Your task to perform on an android device: Go to wifi settings Image 0: 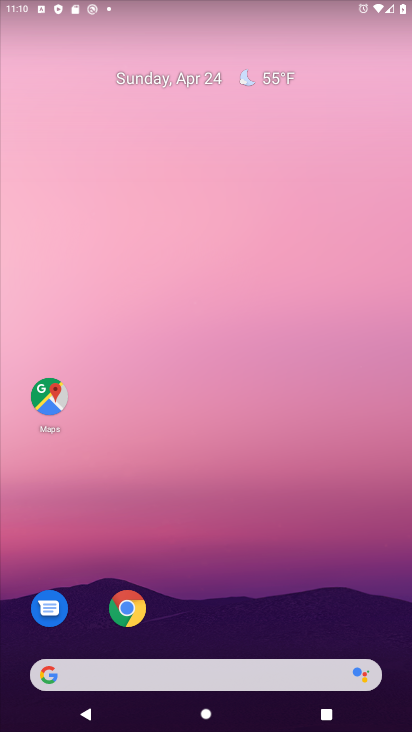
Step 0: drag from (373, 629) to (362, 94)
Your task to perform on an android device: Go to wifi settings Image 1: 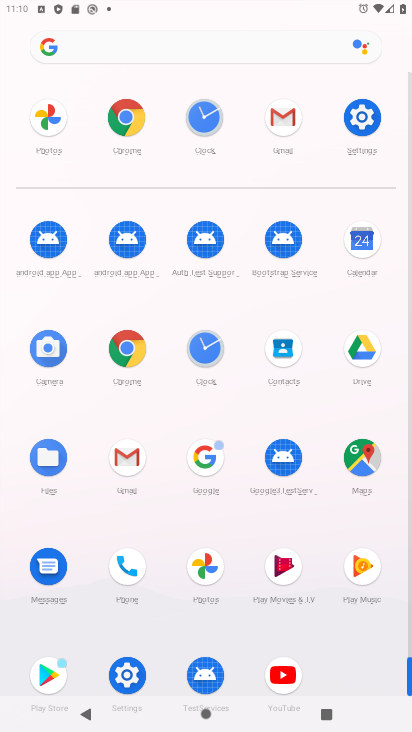
Step 1: click (122, 671)
Your task to perform on an android device: Go to wifi settings Image 2: 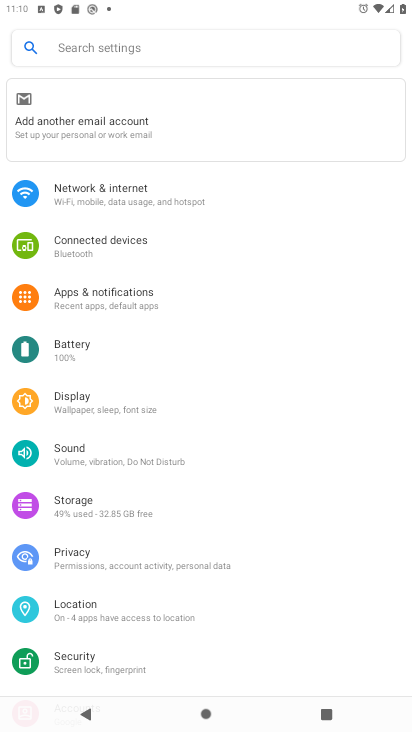
Step 2: click (103, 188)
Your task to perform on an android device: Go to wifi settings Image 3: 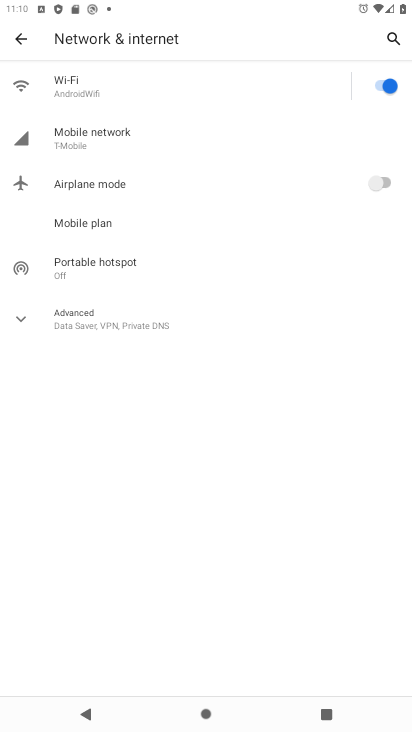
Step 3: click (60, 79)
Your task to perform on an android device: Go to wifi settings Image 4: 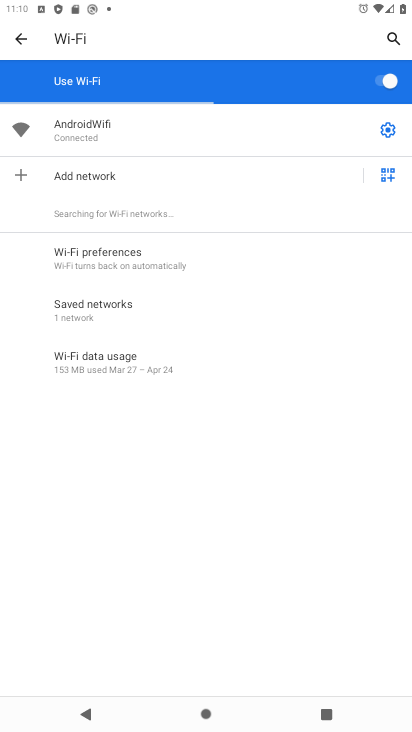
Step 4: click (386, 126)
Your task to perform on an android device: Go to wifi settings Image 5: 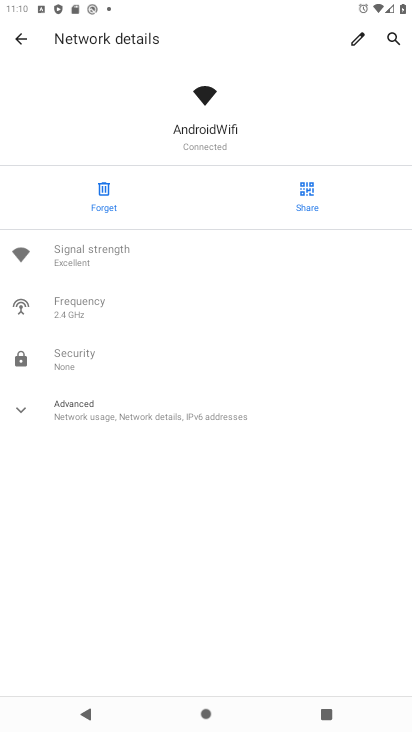
Step 5: click (20, 408)
Your task to perform on an android device: Go to wifi settings Image 6: 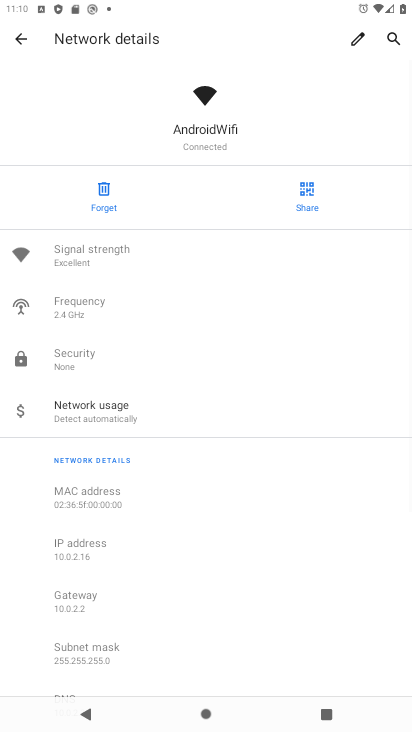
Step 6: task complete